Your task to perform on an android device: Open eBay Image 0: 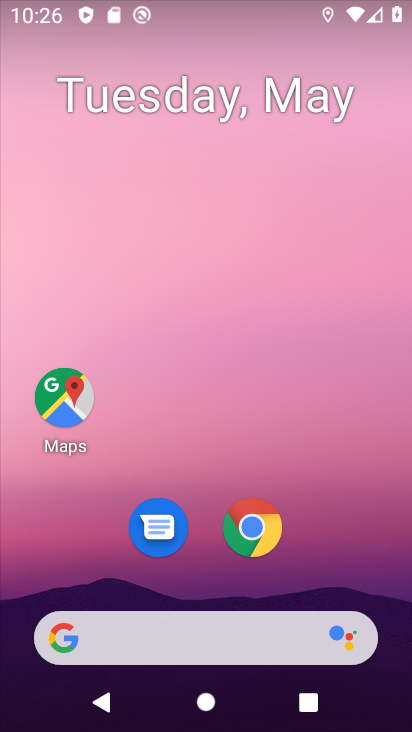
Step 0: click (202, 185)
Your task to perform on an android device: Open eBay Image 1: 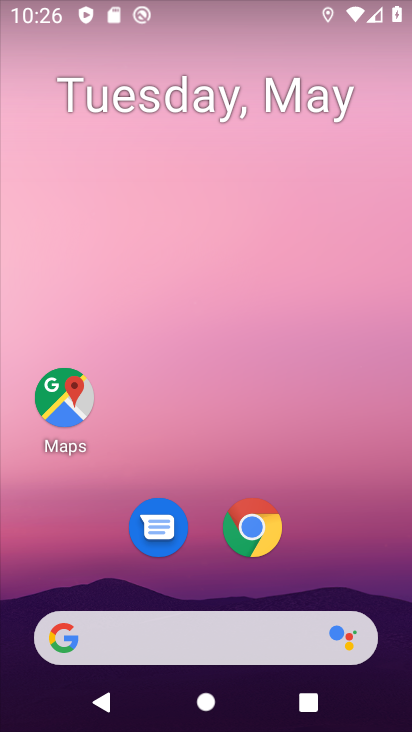
Step 1: drag from (212, 563) to (272, 114)
Your task to perform on an android device: Open eBay Image 2: 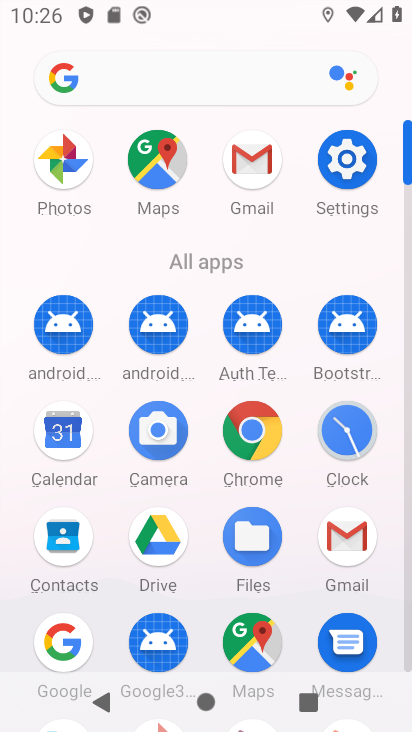
Step 2: click (203, 78)
Your task to perform on an android device: Open eBay Image 3: 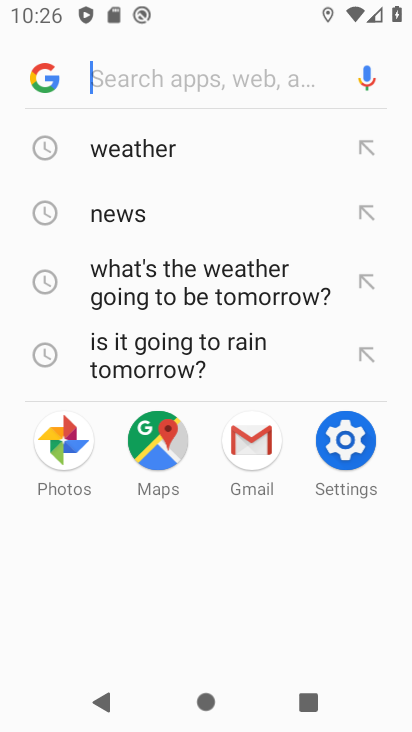
Step 3: type "eBay"
Your task to perform on an android device: Open eBay Image 4: 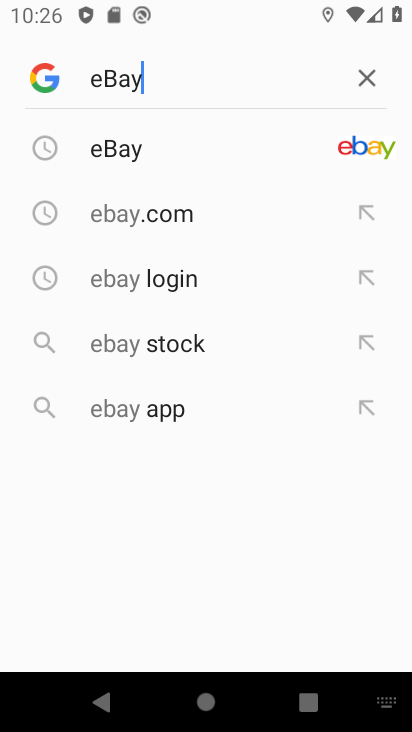
Step 4: click (164, 128)
Your task to perform on an android device: Open eBay Image 5: 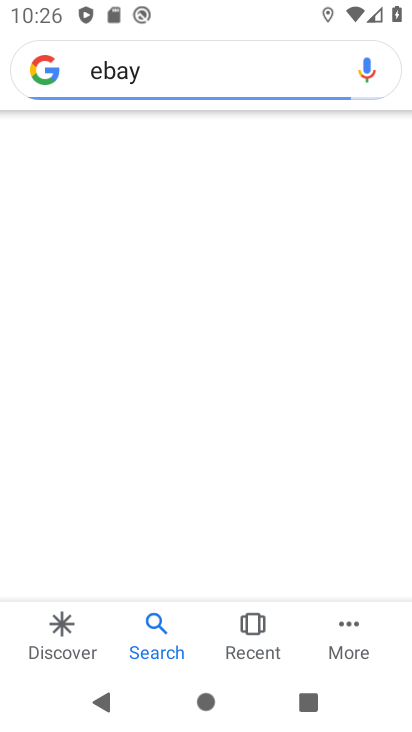
Step 5: click (230, 139)
Your task to perform on an android device: Open eBay Image 6: 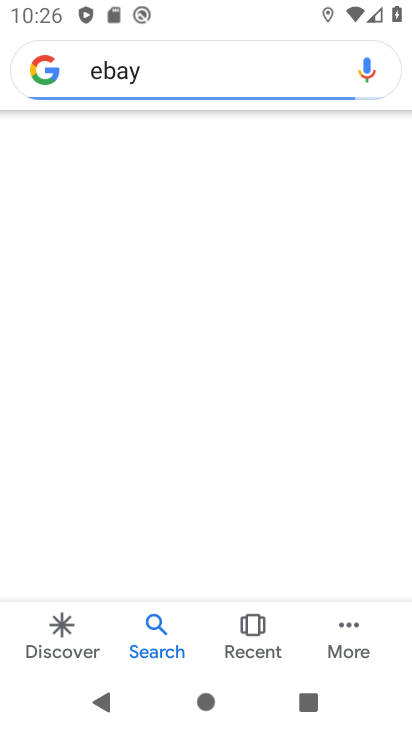
Step 6: drag from (261, 498) to (338, 4)
Your task to perform on an android device: Open eBay Image 7: 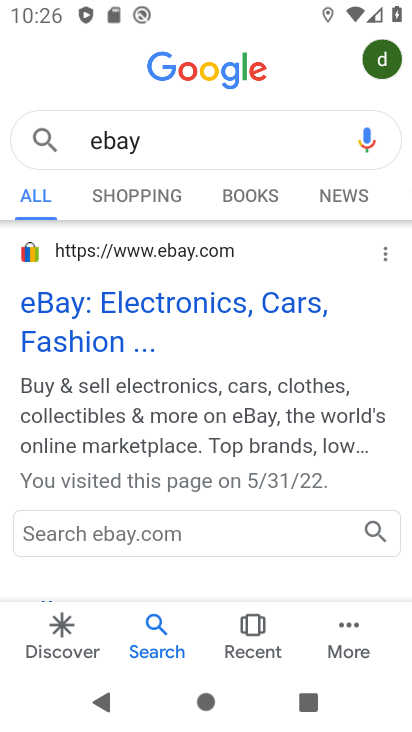
Step 7: click (91, 311)
Your task to perform on an android device: Open eBay Image 8: 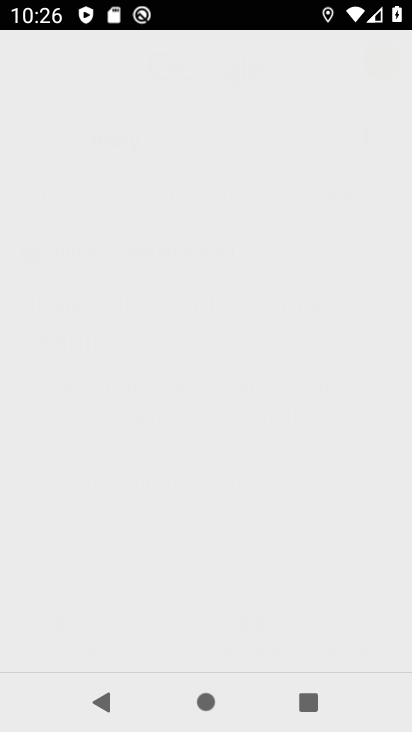
Step 8: drag from (169, 473) to (216, 230)
Your task to perform on an android device: Open eBay Image 9: 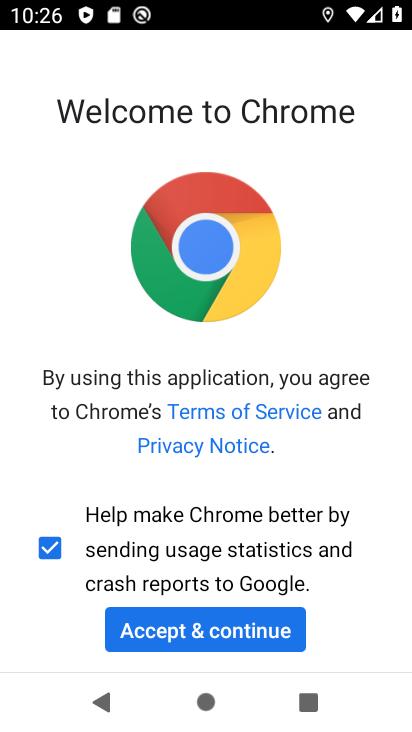
Step 9: drag from (190, 523) to (230, 281)
Your task to perform on an android device: Open eBay Image 10: 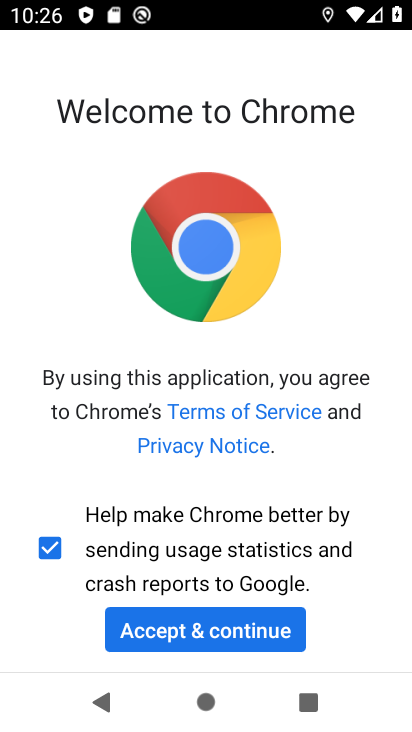
Step 10: click (171, 631)
Your task to perform on an android device: Open eBay Image 11: 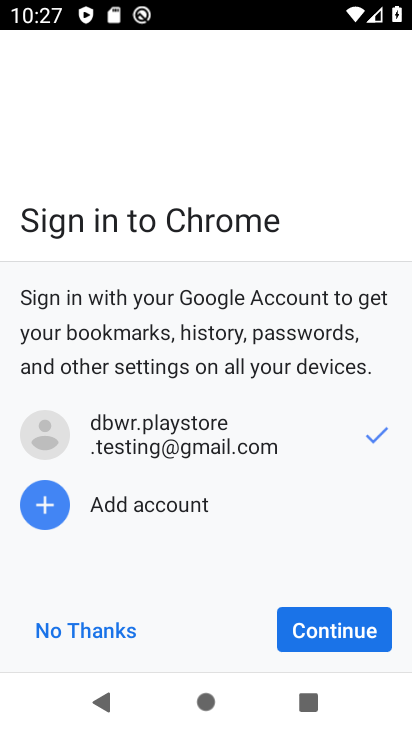
Step 11: drag from (241, 548) to (234, 331)
Your task to perform on an android device: Open eBay Image 12: 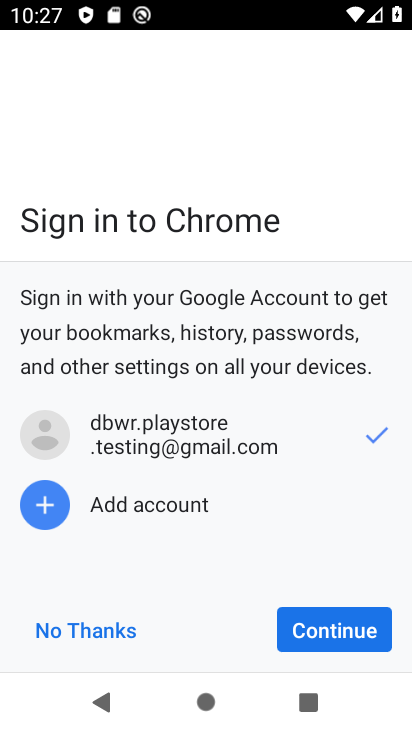
Step 12: click (306, 624)
Your task to perform on an android device: Open eBay Image 13: 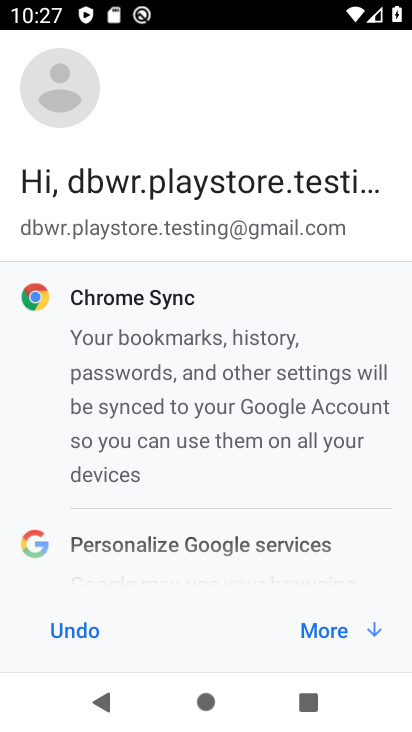
Step 13: drag from (248, 477) to (246, 176)
Your task to perform on an android device: Open eBay Image 14: 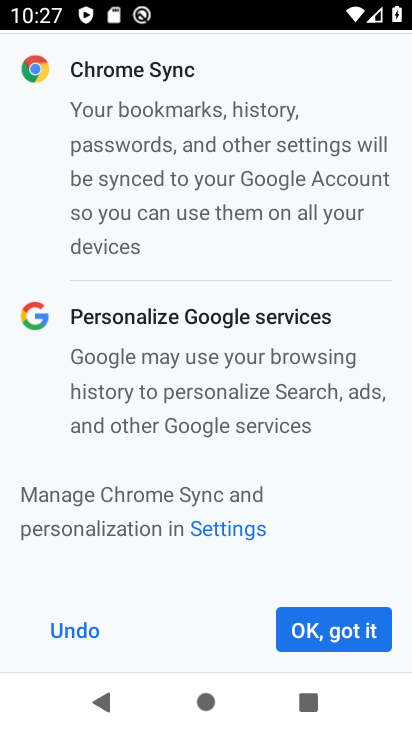
Step 14: click (306, 618)
Your task to perform on an android device: Open eBay Image 15: 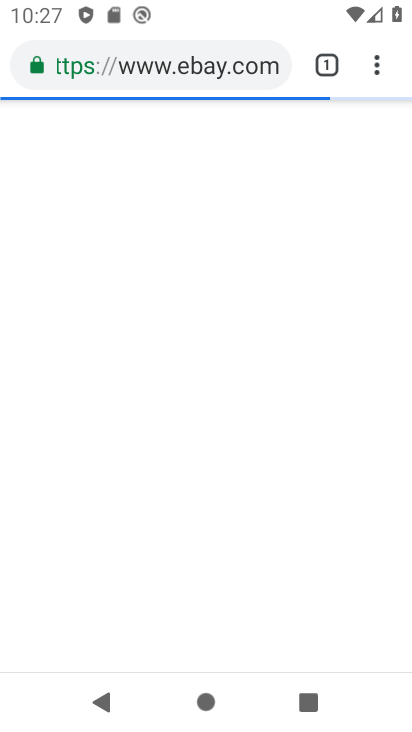
Step 15: task complete